Your task to perform on an android device: toggle data saver in the chrome app Image 0: 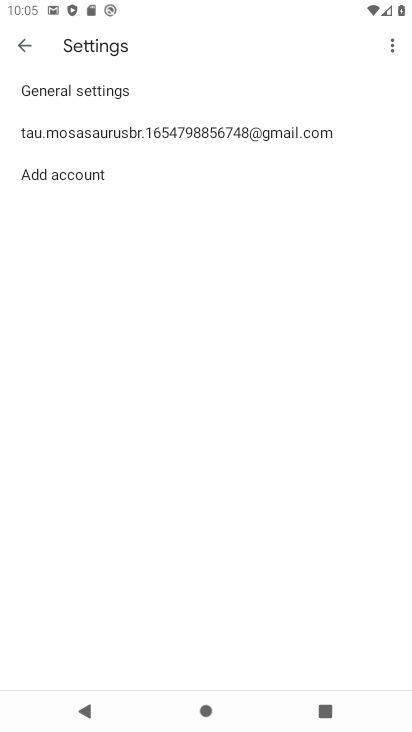
Step 0: press home button
Your task to perform on an android device: toggle data saver in the chrome app Image 1: 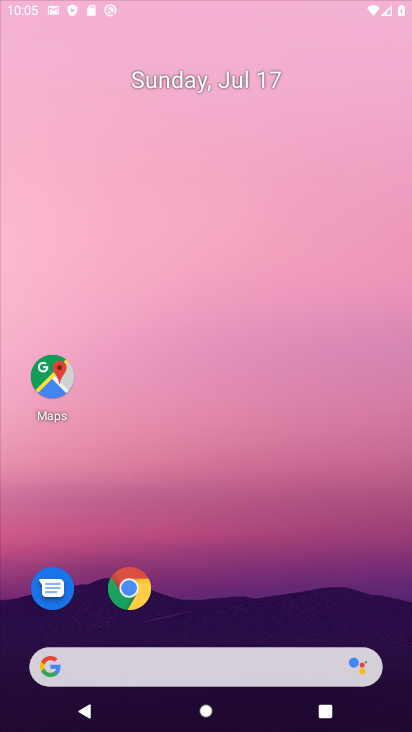
Step 1: drag from (277, 608) to (368, 103)
Your task to perform on an android device: toggle data saver in the chrome app Image 2: 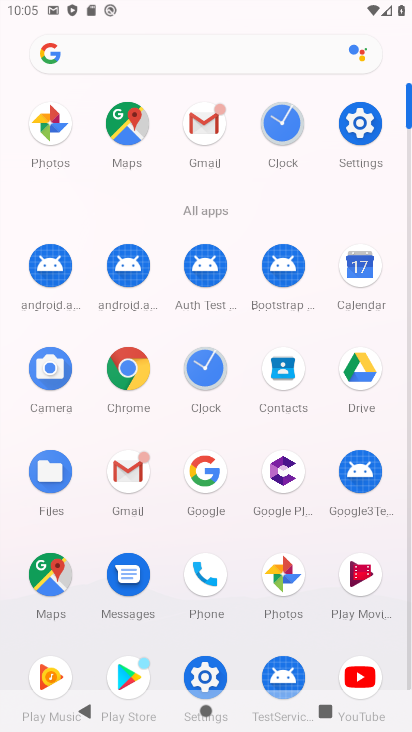
Step 2: click (146, 385)
Your task to perform on an android device: toggle data saver in the chrome app Image 3: 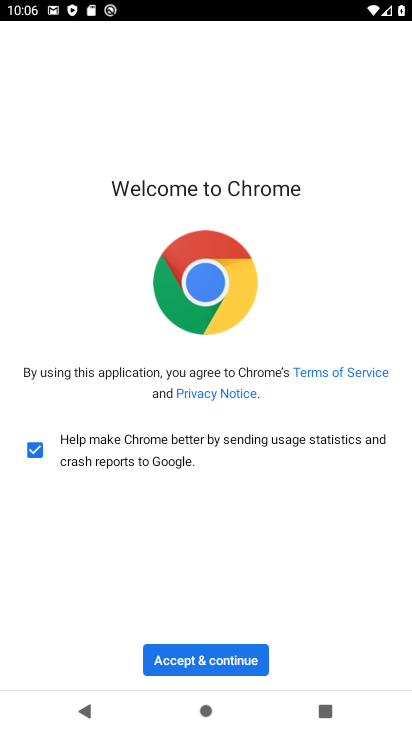
Step 3: click (209, 661)
Your task to perform on an android device: toggle data saver in the chrome app Image 4: 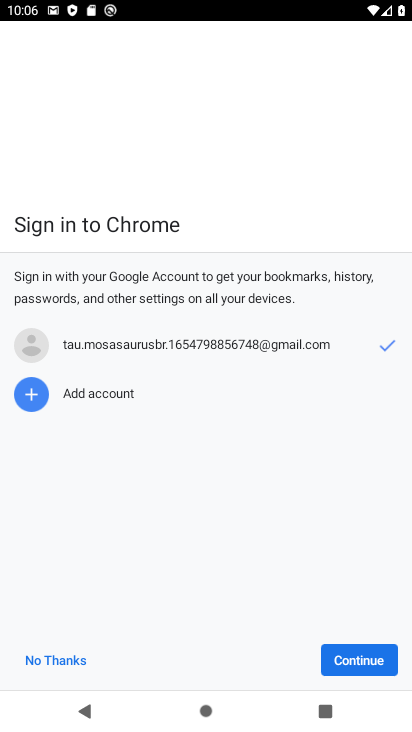
Step 4: click (384, 646)
Your task to perform on an android device: toggle data saver in the chrome app Image 5: 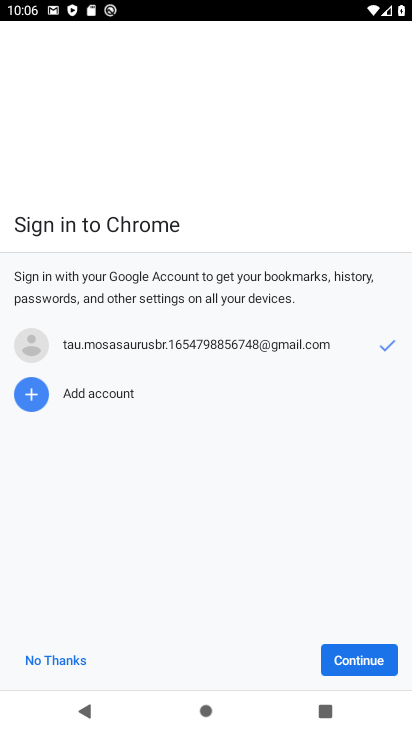
Step 5: click (384, 646)
Your task to perform on an android device: toggle data saver in the chrome app Image 6: 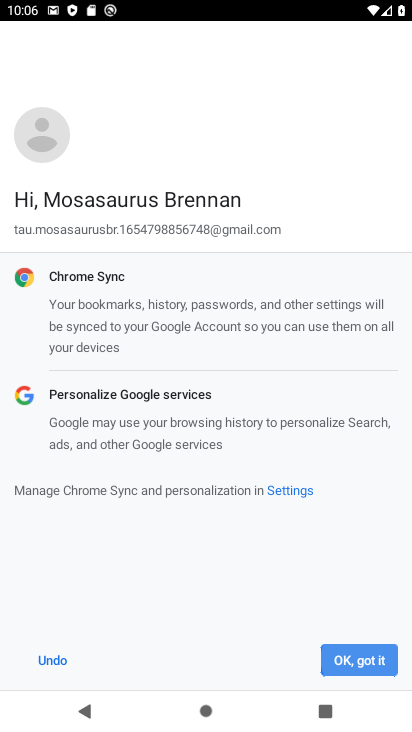
Step 6: click (384, 646)
Your task to perform on an android device: toggle data saver in the chrome app Image 7: 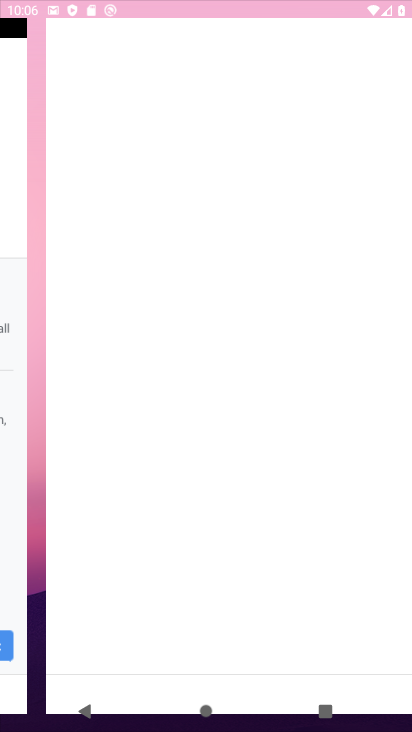
Step 7: click (384, 646)
Your task to perform on an android device: toggle data saver in the chrome app Image 8: 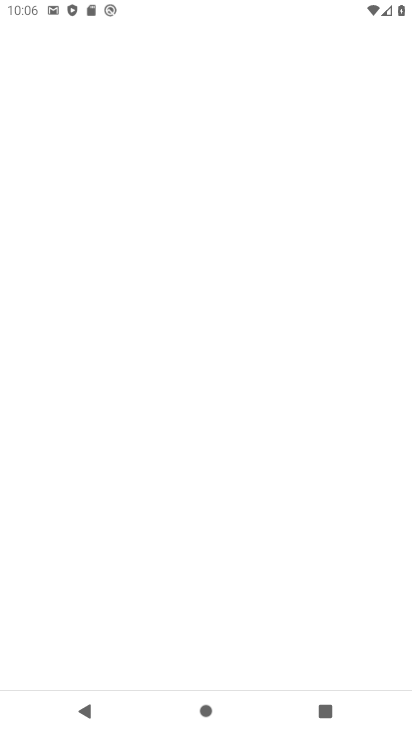
Step 8: click (384, 646)
Your task to perform on an android device: toggle data saver in the chrome app Image 9: 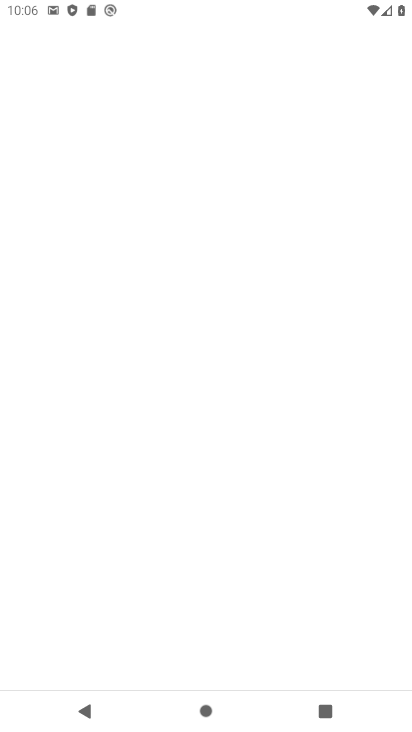
Step 9: click (384, 646)
Your task to perform on an android device: toggle data saver in the chrome app Image 10: 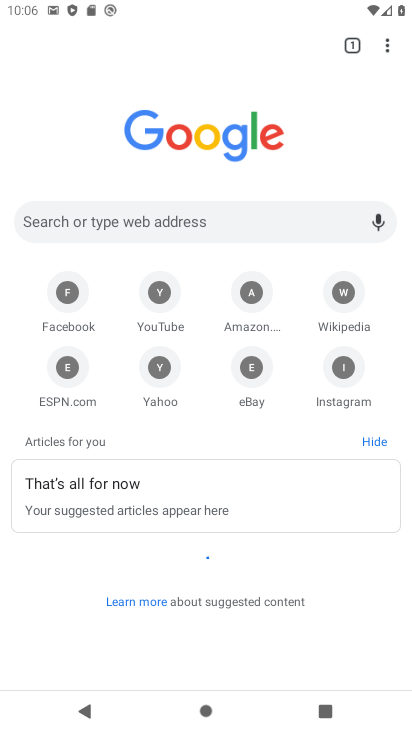
Step 10: drag from (384, 57) to (238, 372)
Your task to perform on an android device: toggle data saver in the chrome app Image 11: 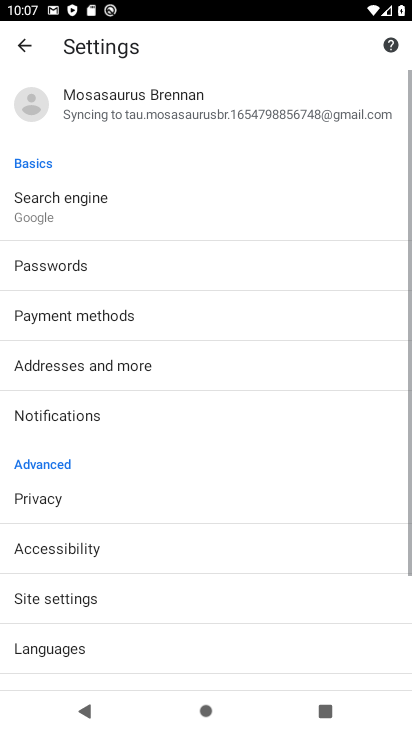
Step 11: drag from (77, 641) to (91, 524)
Your task to perform on an android device: toggle data saver in the chrome app Image 12: 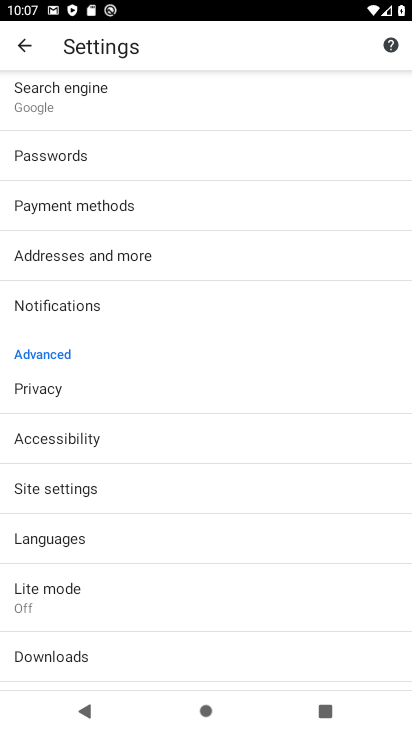
Step 12: click (77, 610)
Your task to perform on an android device: toggle data saver in the chrome app Image 13: 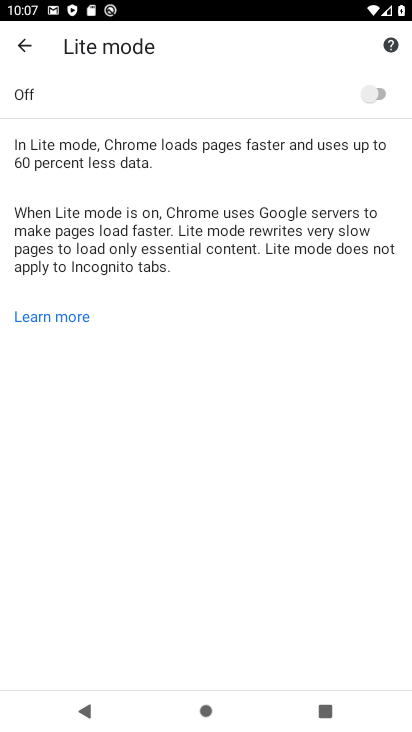
Step 13: click (348, 108)
Your task to perform on an android device: toggle data saver in the chrome app Image 14: 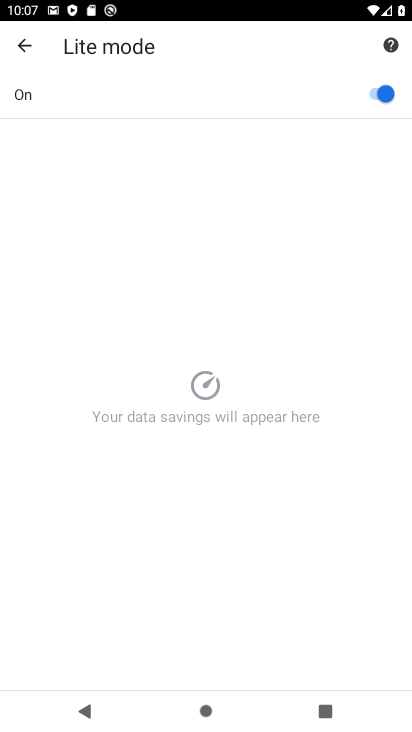
Step 14: task complete